Your task to perform on an android device: turn on the 24-hour format for clock Image 0: 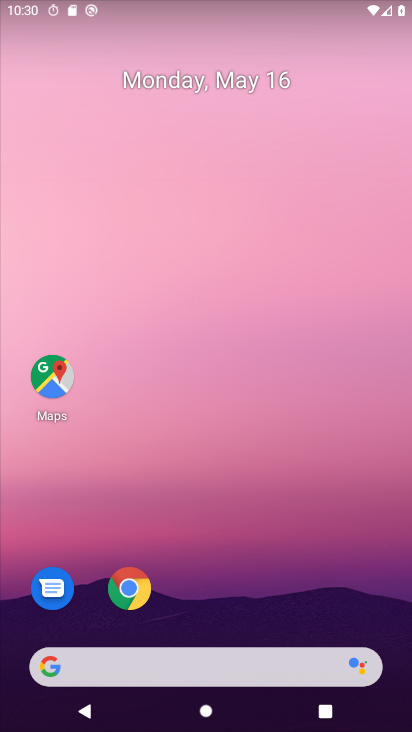
Step 0: press home button
Your task to perform on an android device: turn on the 24-hour format for clock Image 1: 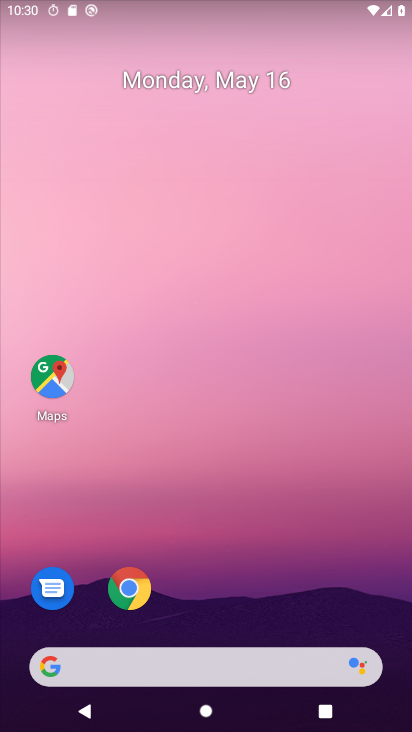
Step 1: drag from (202, 628) to (240, 8)
Your task to perform on an android device: turn on the 24-hour format for clock Image 2: 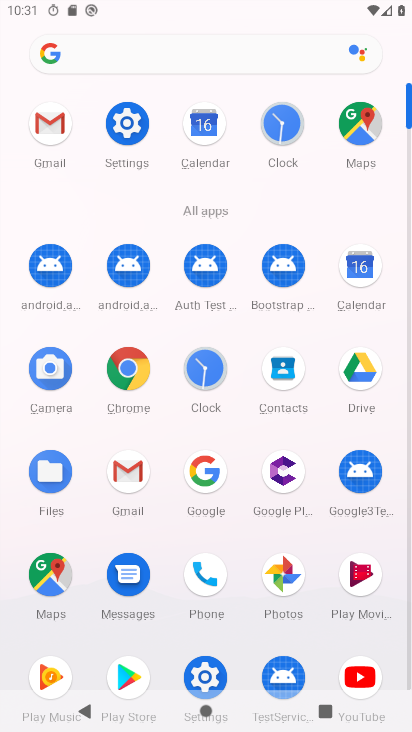
Step 2: click (205, 357)
Your task to perform on an android device: turn on the 24-hour format for clock Image 3: 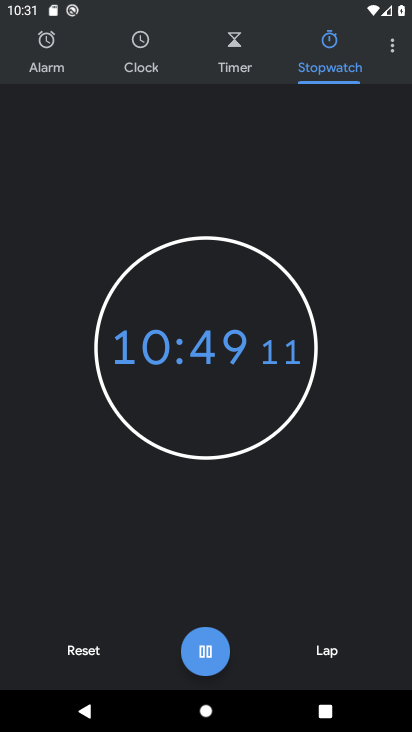
Step 3: click (90, 649)
Your task to perform on an android device: turn on the 24-hour format for clock Image 4: 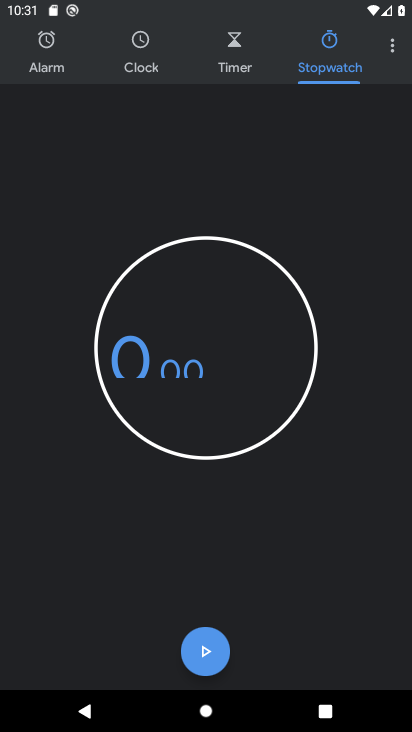
Step 4: click (393, 40)
Your task to perform on an android device: turn on the 24-hour format for clock Image 5: 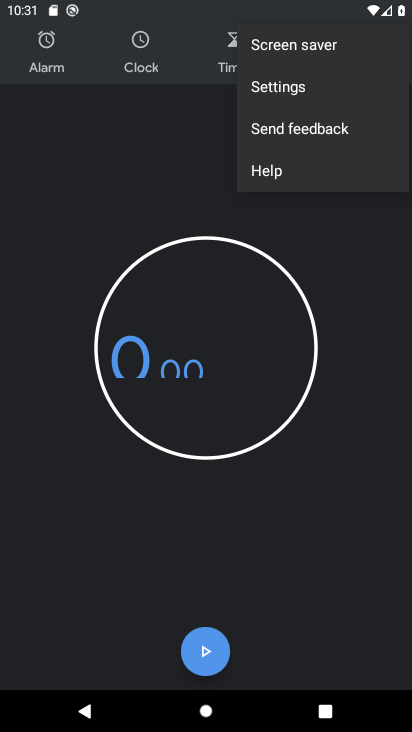
Step 5: click (316, 82)
Your task to perform on an android device: turn on the 24-hour format for clock Image 6: 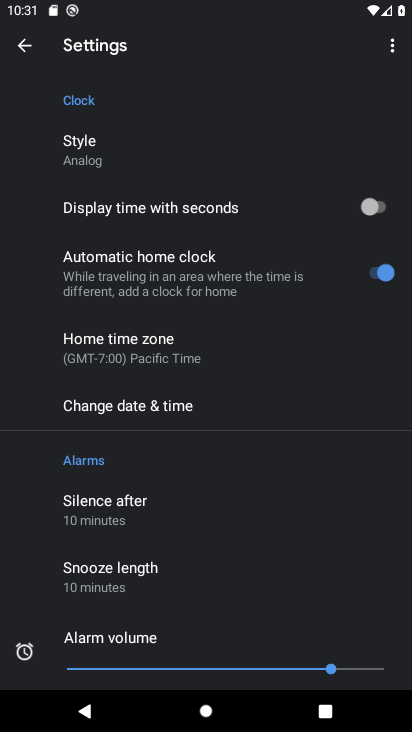
Step 6: click (205, 405)
Your task to perform on an android device: turn on the 24-hour format for clock Image 7: 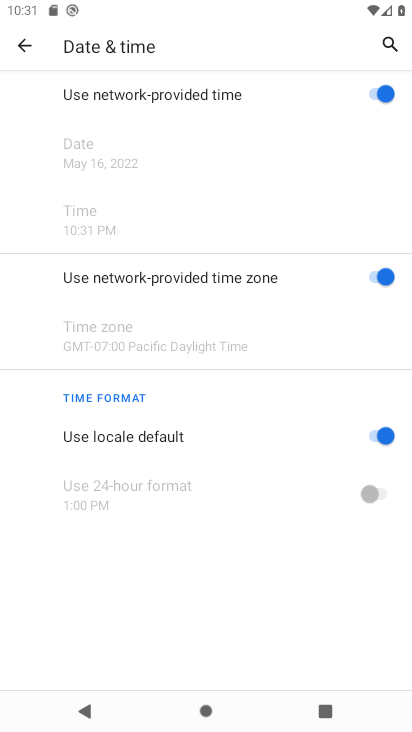
Step 7: click (377, 431)
Your task to perform on an android device: turn on the 24-hour format for clock Image 8: 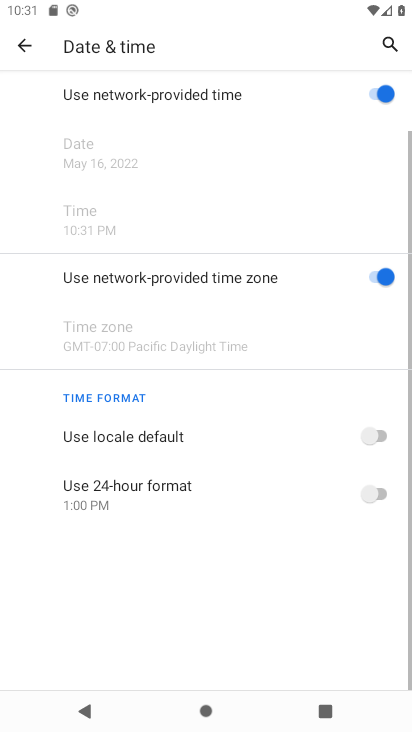
Step 8: click (380, 490)
Your task to perform on an android device: turn on the 24-hour format for clock Image 9: 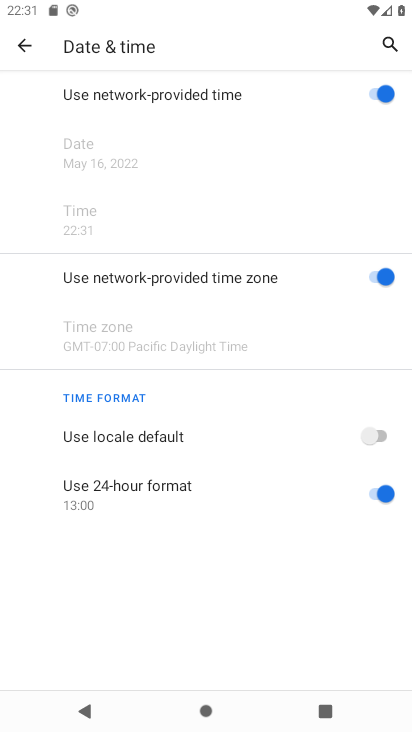
Step 9: task complete